Your task to perform on an android device: find which apps use the phone's location Image 0: 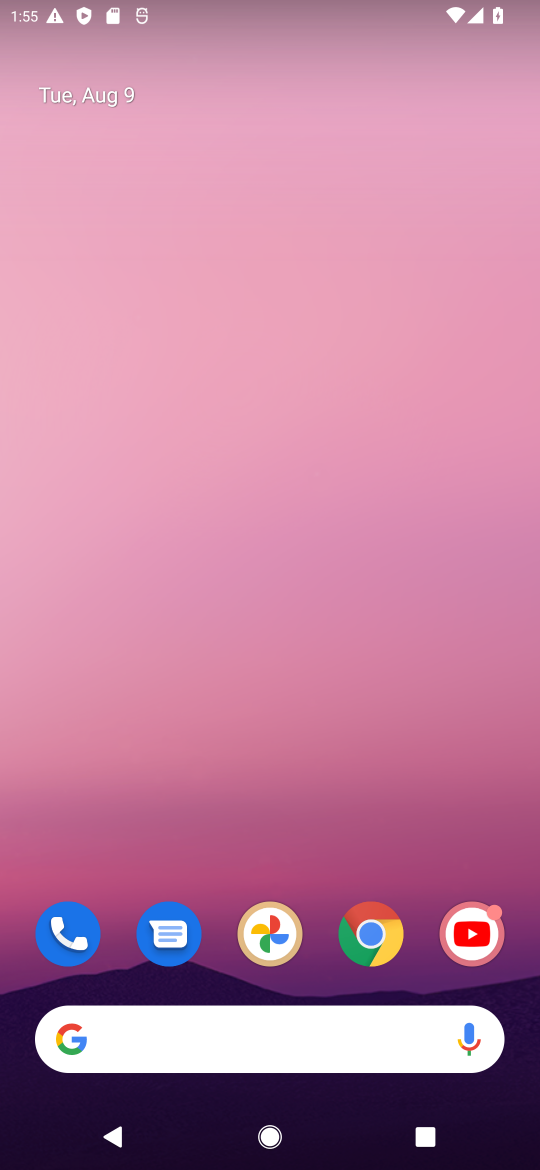
Step 0: drag from (314, 986) to (367, 96)
Your task to perform on an android device: find which apps use the phone's location Image 1: 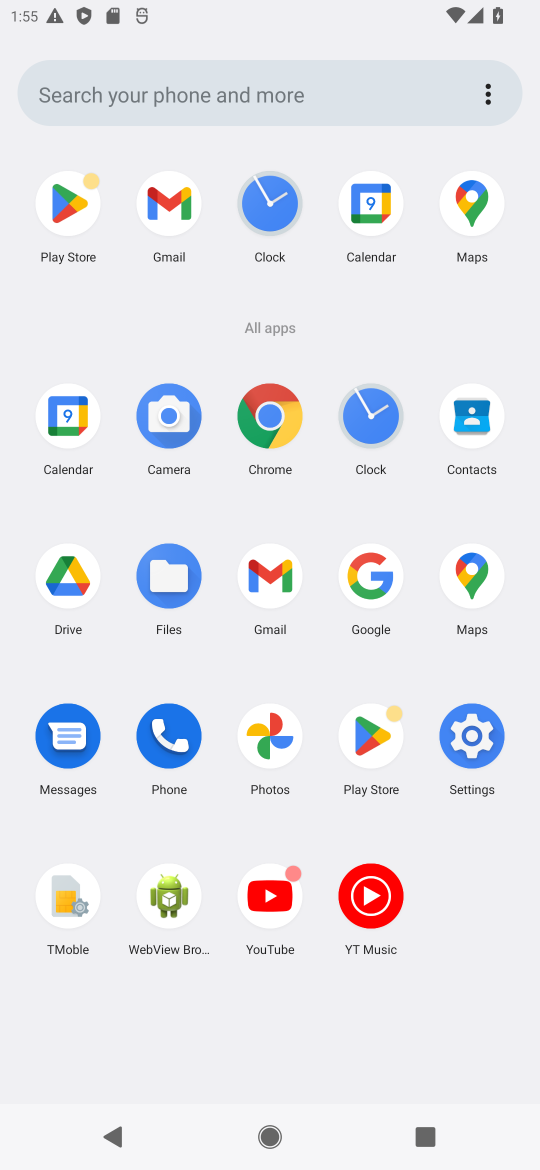
Step 1: click (473, 720)
Your task to perform on an android device: find which apps use the phone's location Image 2: 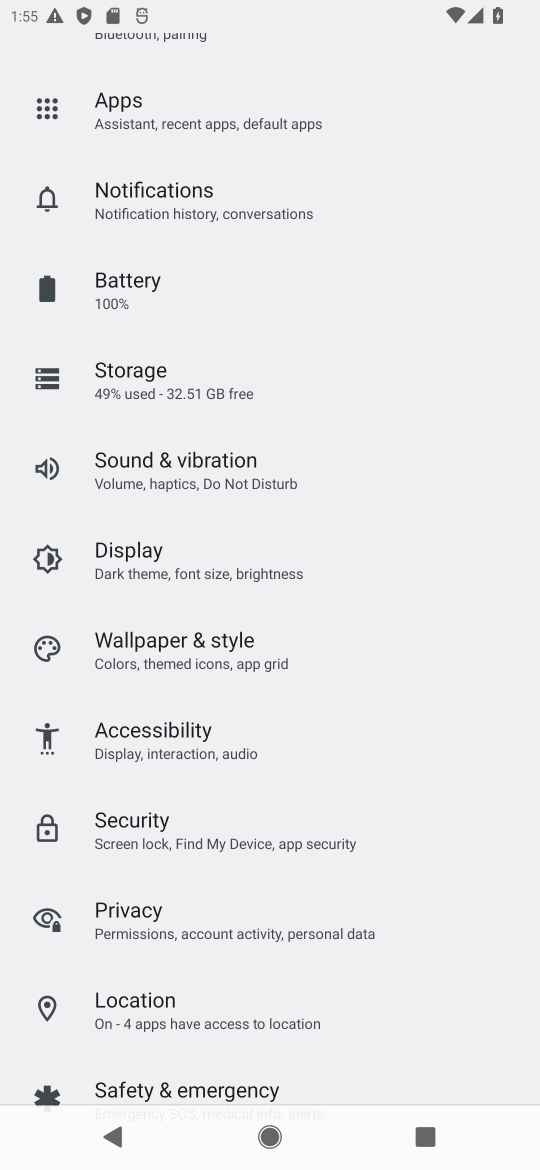
Step 2: click (232, 1044)
Your task to perform on an android device: find which apps use the phone's location Image 3: 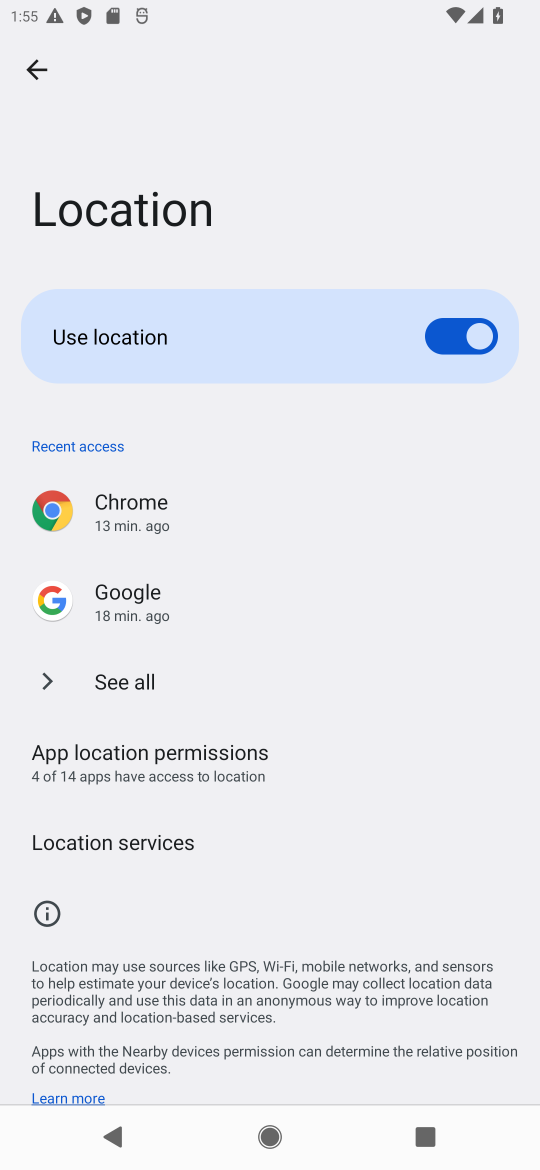
Step 3: task complete